Your task to perform on an android device: set default search engine in the chrome app Image 0: 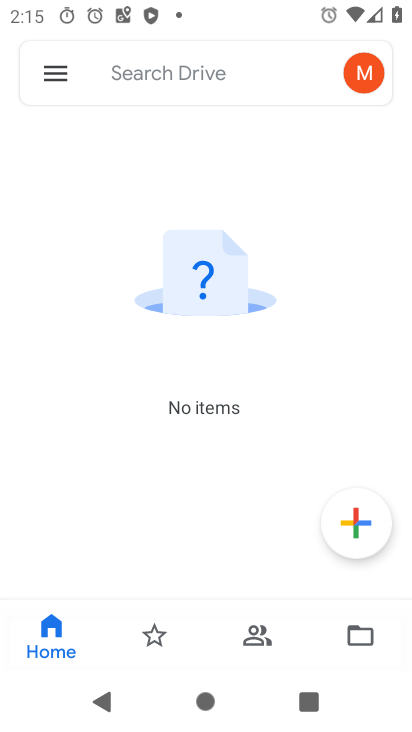
Step 0: press home button
Your task to perform on an android device: set default search engine in the chrome app Image 1: 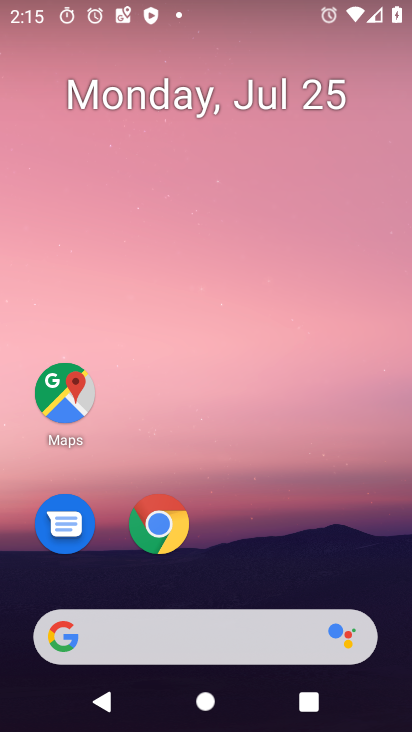
Step 1: click (151, 521)
Your task to perform on an android device: set default search engine in the chrome app Image 2: 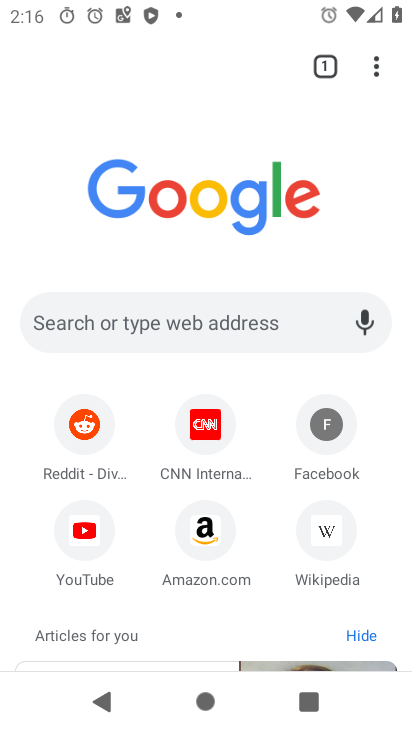
Step 2: drag from (377, 63) to (149, 553)
Your task to perform on an android device: set default search engine in the chrome app Image 3: 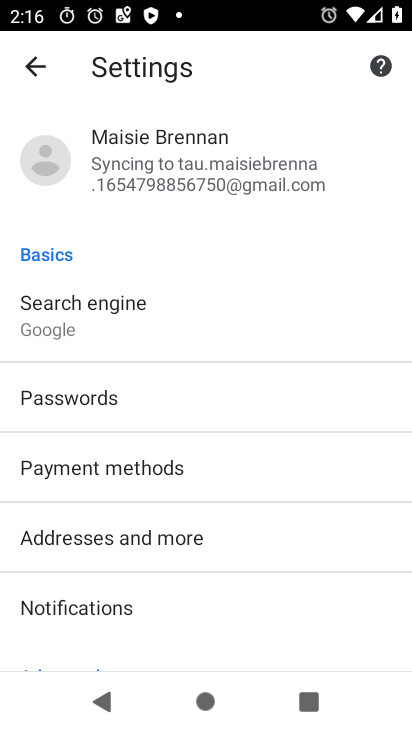
Step 3: click (73, 306)
Your task to perform on an android device: set default search engine in the chrome app Image 4: 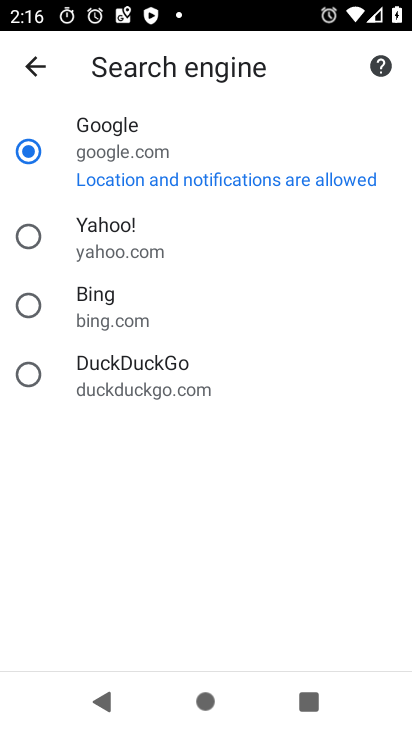
Step 4: click (29, 242)
Your task to perform on an android device: set default search engine in the chrome app Image 5: 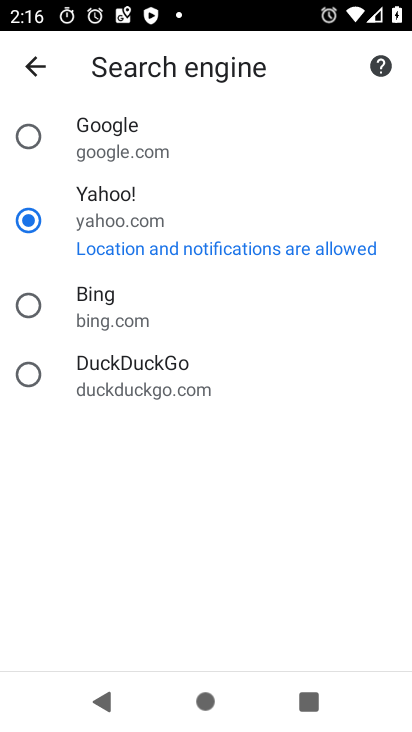
Step 5: task complete